Your task to perform on an android device: change notifications settings Image 0: 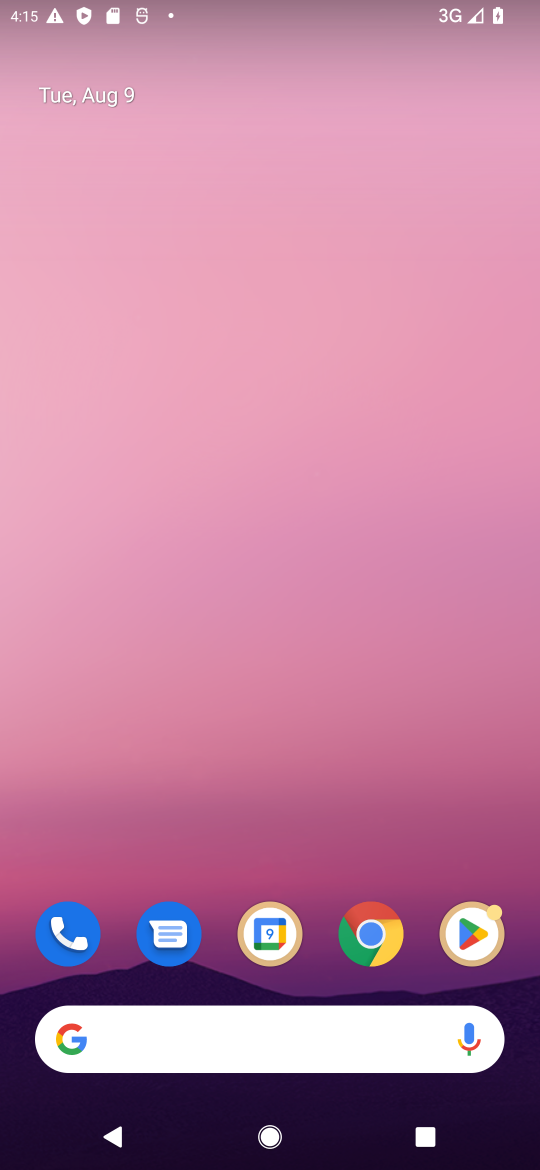
Step 0: drag from (316, 987) to (344, 154)
Your task to perform on an android device: change notifications settings Image 1: 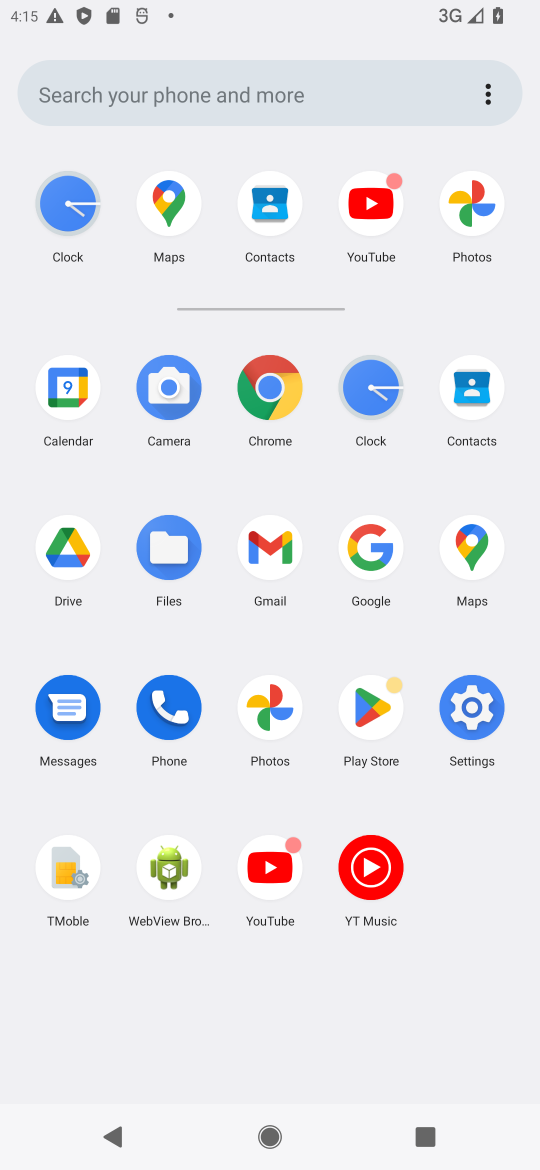
Step 1: click (465, 679)
Your task to perform on an android device: change notifications settings Image 2: 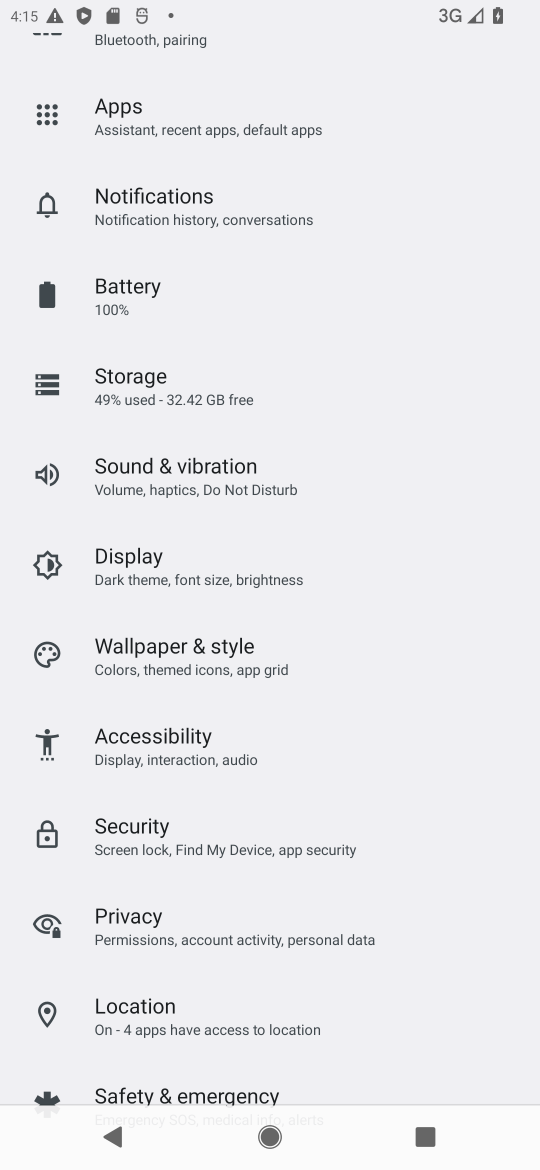
Step 2: click (218, 255)
Your task to perform on an android device: change notifications settings Image 3: 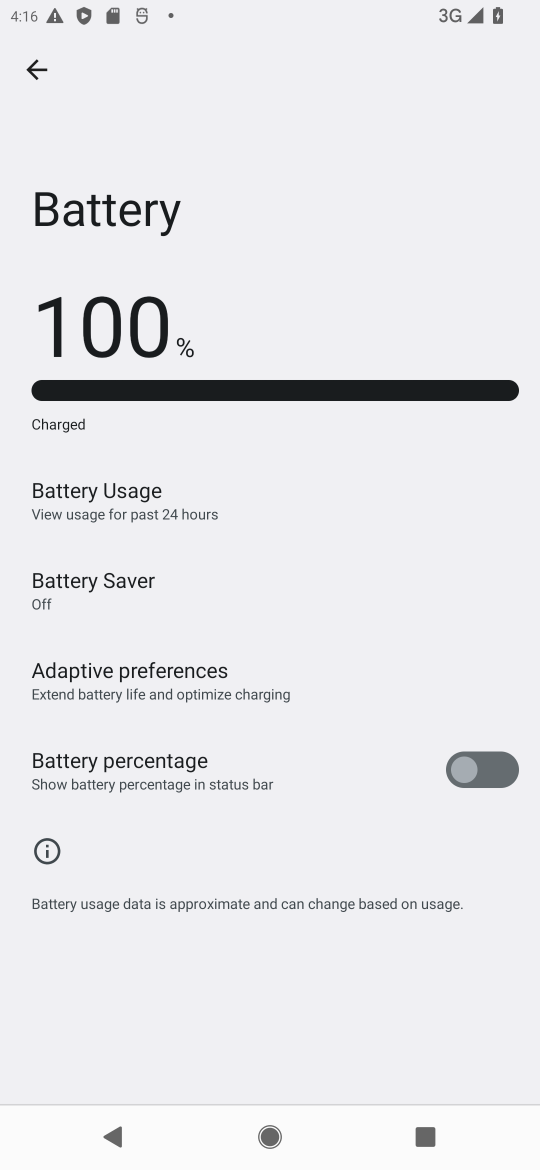
Step 3: task complete